Your task to perform on an android device: turn on bluetooth scan Image 0: 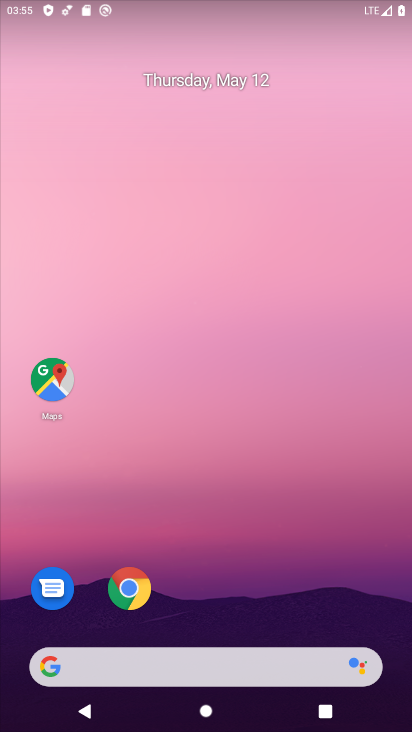
Step 0: drag from (230, 593) to (209, 147)
Your task to perform on an android device: turn on bluetooth scan Image 1: 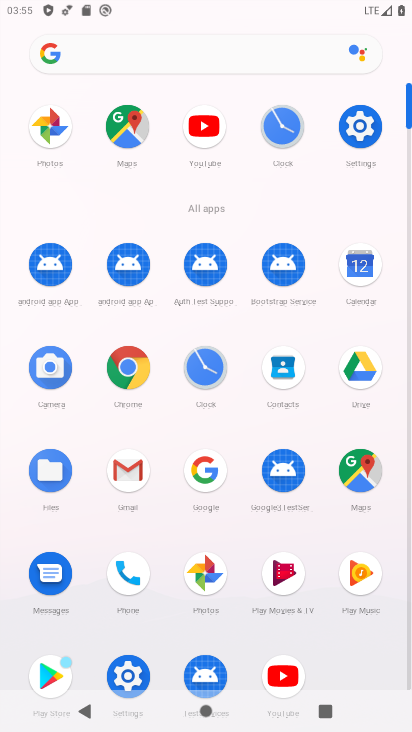
Step 1: click (357, 132)
Your task to perform on an android device: turn on bluetooth scan Image 2: 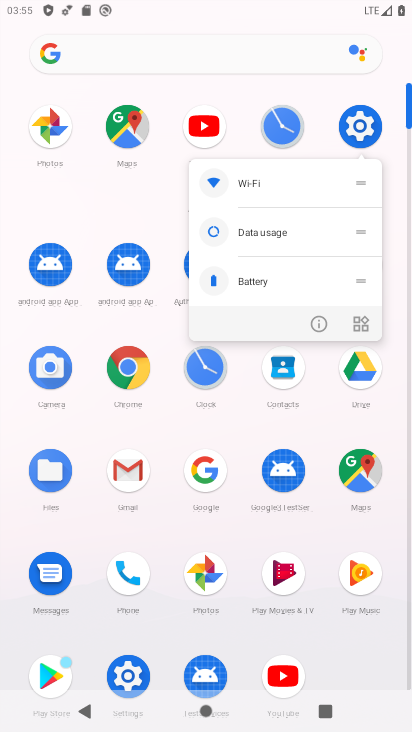
Step 2: click (310, 320)
Your task to perform on an android device: turn on bluetooth scan Image 3: 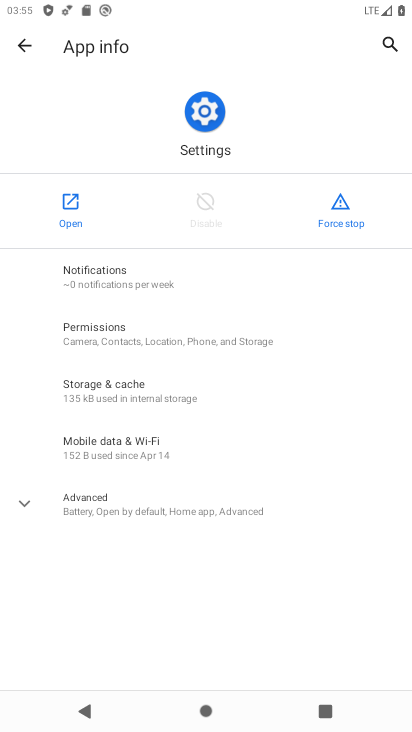
Step 3: click (75, 210)
Your task to perform on an android device: turn on bluetooth scan Image 4: 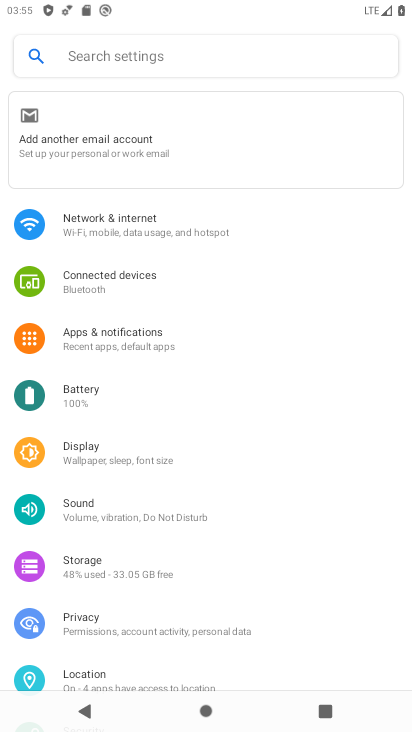
Step 4: drag from (182, 535) to (191, 304)
Your task to perform on an android device: turn on bluetooth scan Image 5: 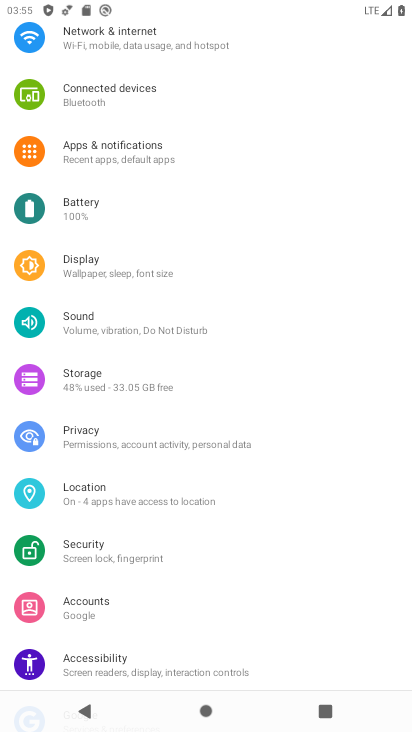
Step 5: drag from (174, 201) to (232, 688)
Your task to perform on an android device: turn on bluetooth scan Image 6: 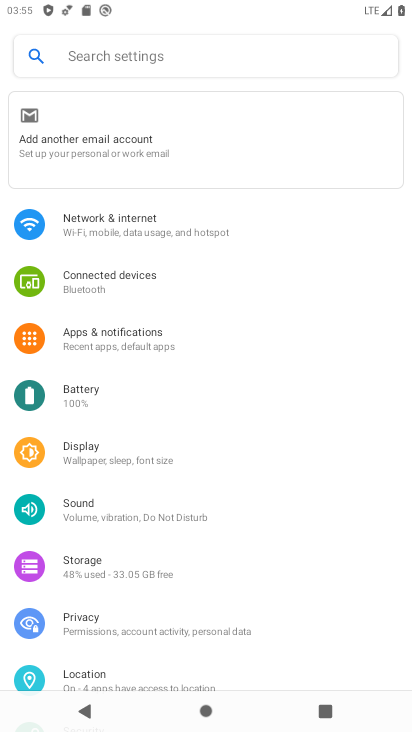
Step 6: click (167, 56)
Your task to perform on an android device: turn on bluetooth scan Image 7: 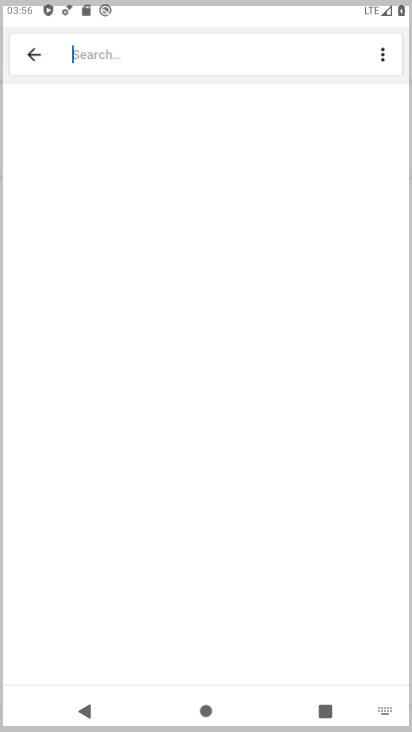
Step 7: type ""
Your task to perform on an android device: turn on bluetooth scan Image 8: 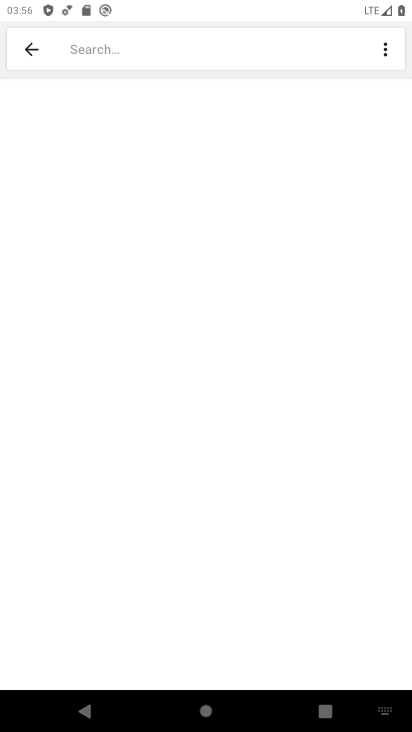
Step 8: type "bluetooth scan"
Your task to perform on an android device: turn on bluetooth scan Image 9: 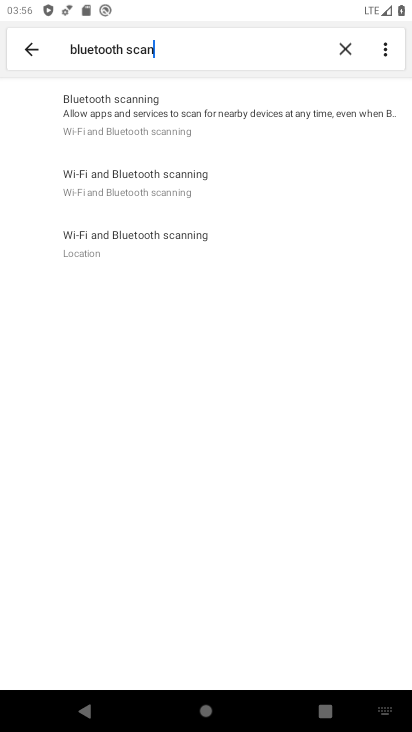
Step 9: click (191, 119)
Your task to perform on an android device: turn on bluetooth scan Image 10: 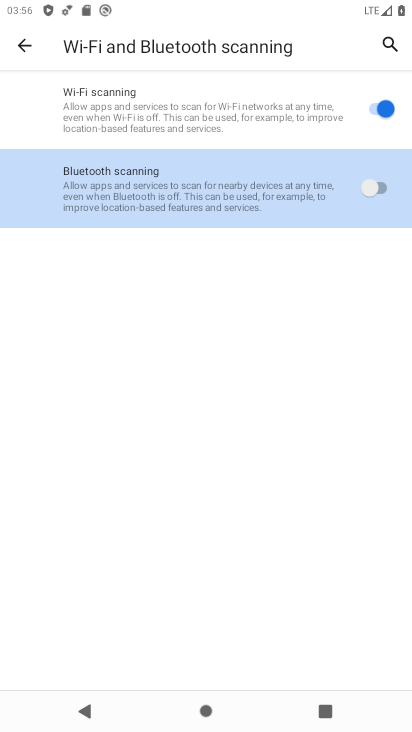
Step 10: drag from (195, 514) to (334, 233)
Your task to perform on an android device: turn on bluetooth scan Image 11: 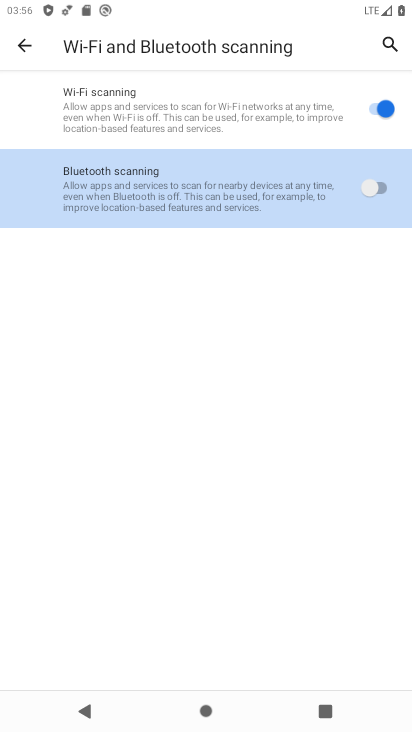
Step 11: click (339, 184)
Your task to perform on an android device: turn on bluetooth scan Image 12: 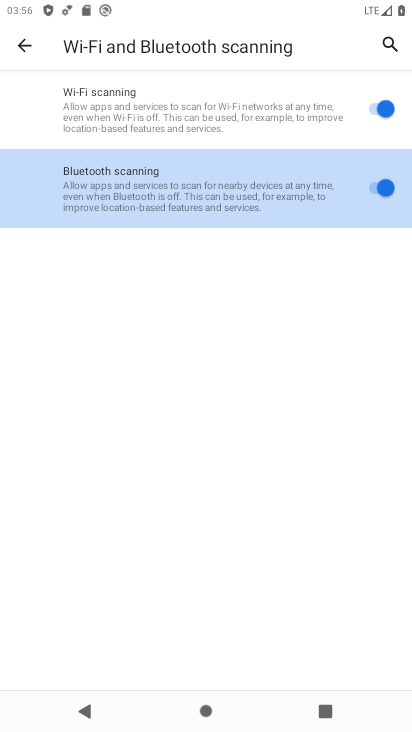
Step 12: task complete